Your task to perform on an android device: Show me productivity apps on the Play Store Image 0: 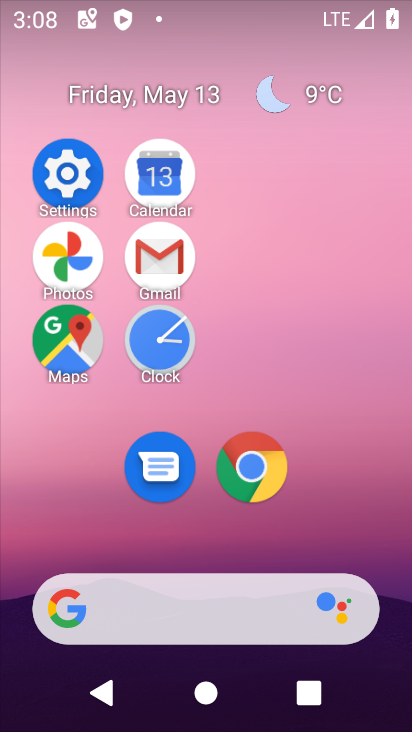
Step 0: drag from (274, 499) to (292, 141)
Your task to perform on an android device: Show me productivity apps on the Play Store Image 1: 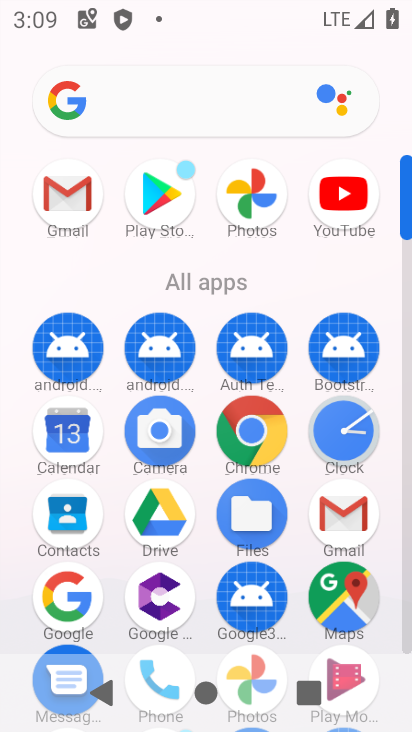
Step 1: drag from (237, 575) to (257, 149)
Your task to perform on an android device: Show me productivity apps on the Play Store Image 2: 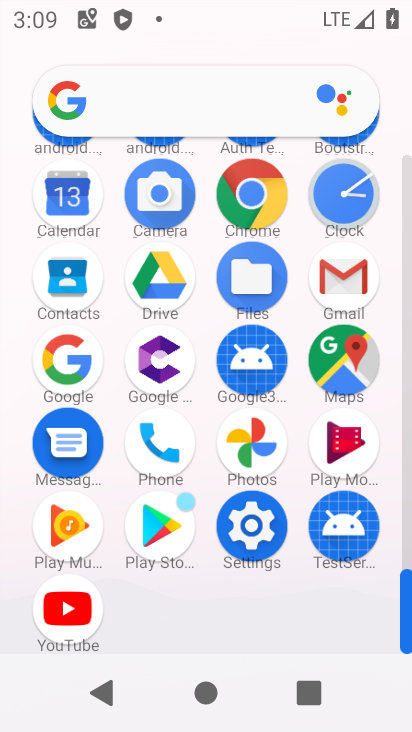
Step 2: click (173, 538)
Your task to perform on an android device: Show me productivity apps on the Play Store Image 3: 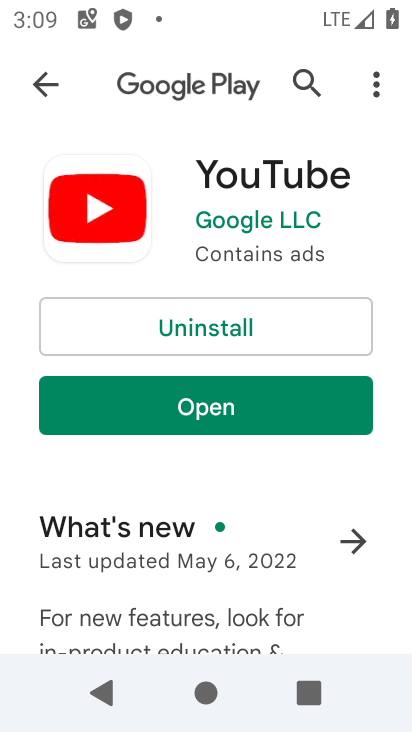
Step 3: click (42, 76)
Your task to perform on an android device: Show me productivity apps on the Play Store Image 4: 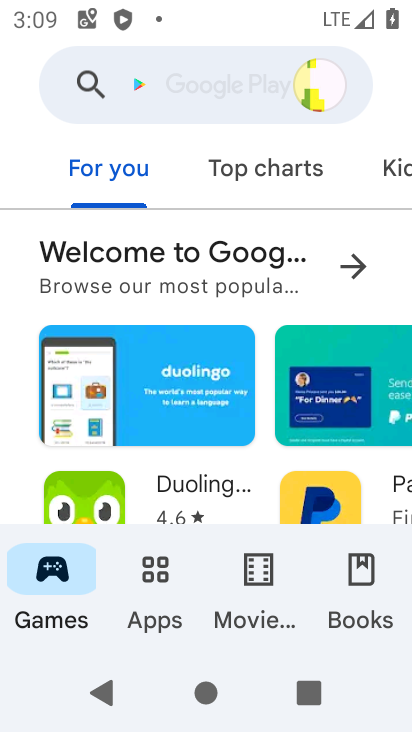
Step 4: click (172, 574)
Your task to perform on an android device: Show me productivity apps on the Play Store Image 5: 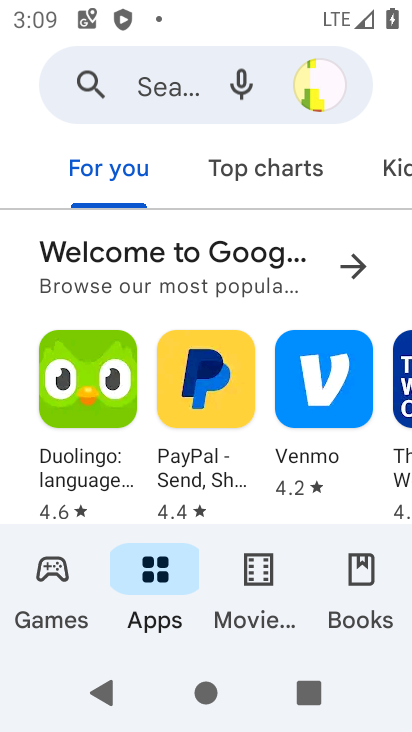
Step 5: drag from (379, 176) to (154, 169)
Your task to perform on an android device: Show me productivity apps on the Play Store Image 6: 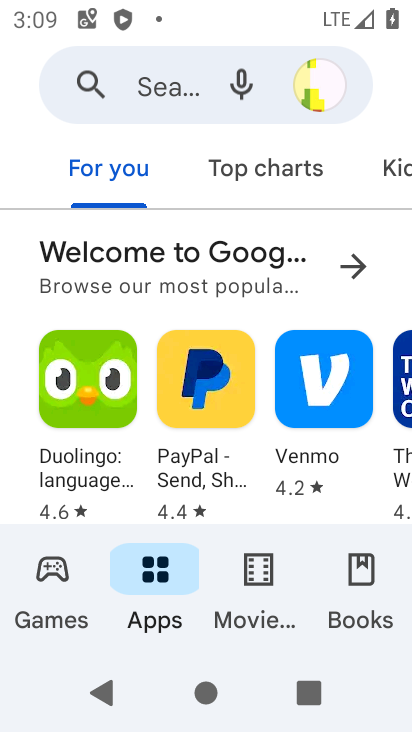
Step 6: drag from (387, 172) to (22, 147)
Your task to perform on an android device: Show me productivity apps on the Play Store Image 7: 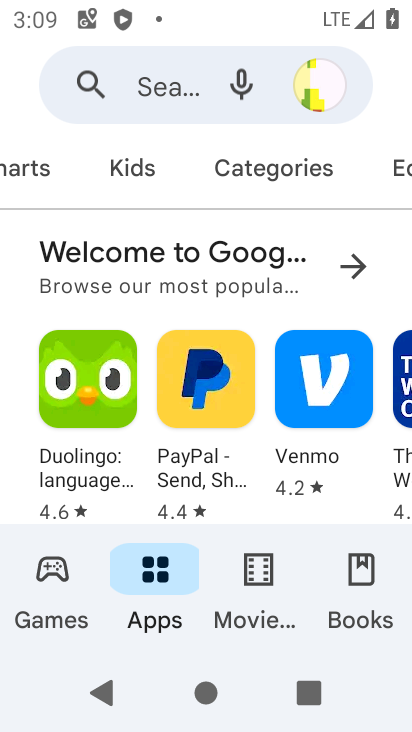
Step 7: click (264, 179)
Your task to perform on an android device: Show me productivity apps on the Play Store Image 8: 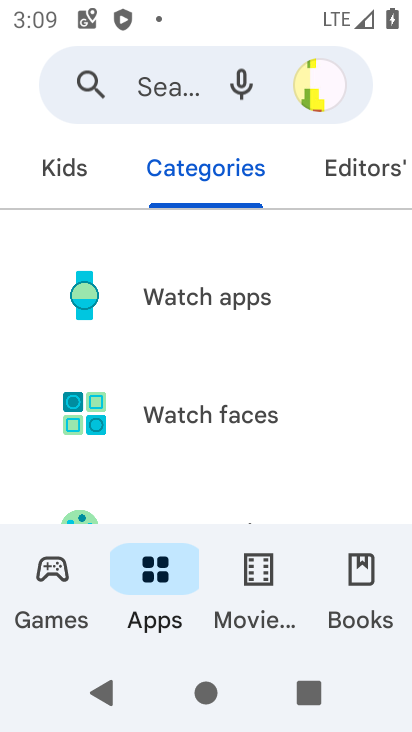
Step 8: drag from (293, 481) to (324, 150)
Your task to perform on an android device: Show me productivity apps on the Play Store Image 9: 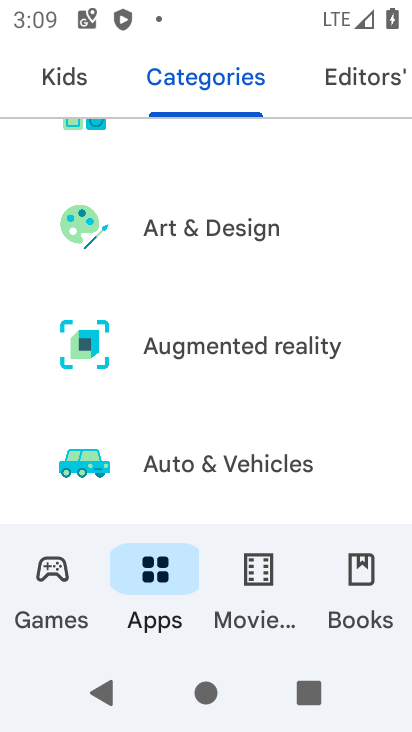
Step 9: drag from (322, 430) to (332, 177)
Your task to perform on an android device: Show me productivity apps on the Play Store Image 10: 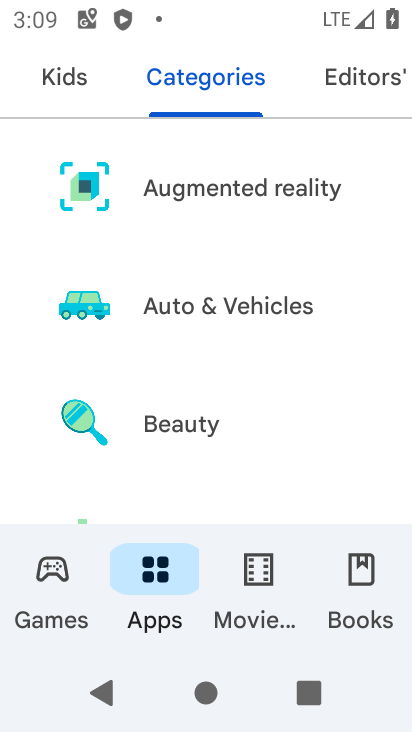
Step 10: drag from (354, 446) to (328, 186)
Your task to perform on an android device: Show me productivity apps on the Play Store Image 11: 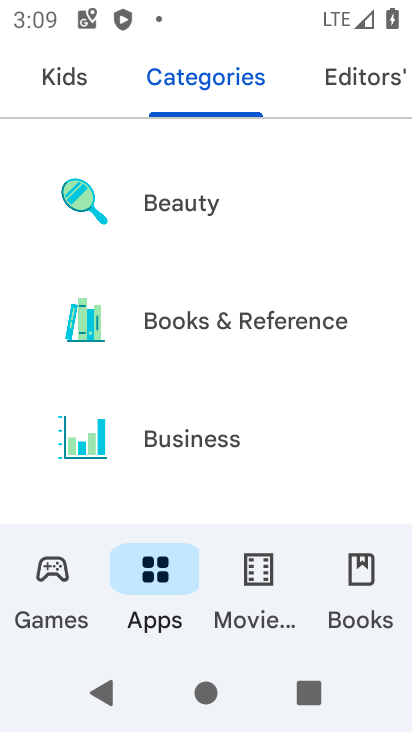
Step 11: drag from (325, 468) to (274, 158)
Your task to perform on an android device: Show me productivity apps on the Play Store Image 12: 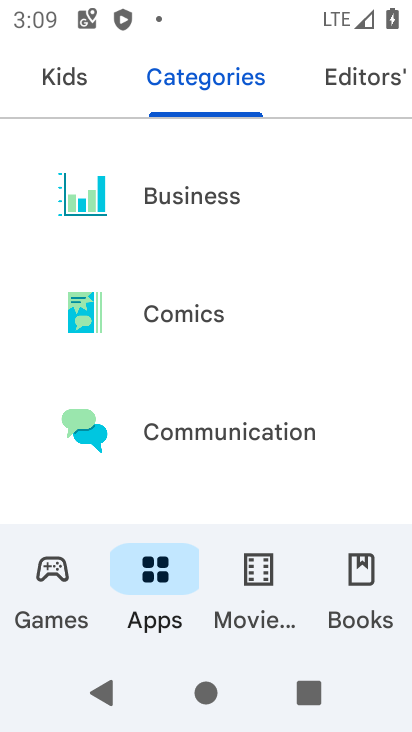
Step 12: drag from (338, 445) to (306, 151)
Your task to perform on an android device: Show me productivity apps on the Play Store Image 13: 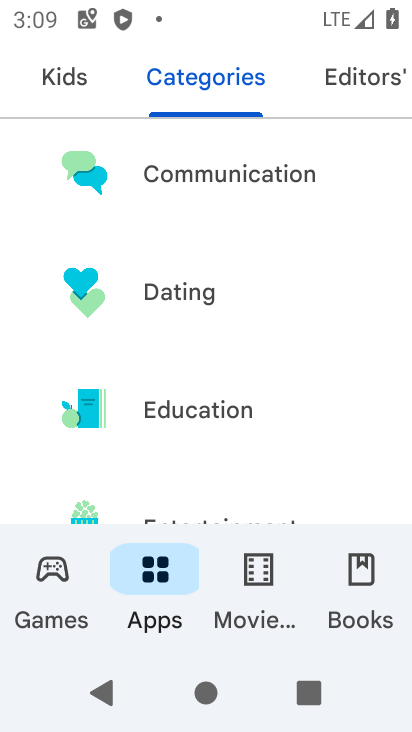
Step 13: drag from (299, 446) to (287, 124)
Your task to perform on an android device: Show me productivity apps on the Play Store Image 14: 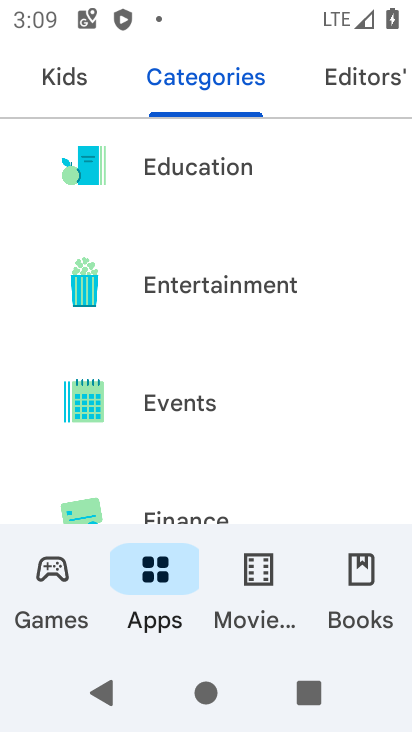
Step 14: drag from (309, 472) to (290, 182)
Your task to perform on an android device: Show me productivity apps on the Play Store Image 15: 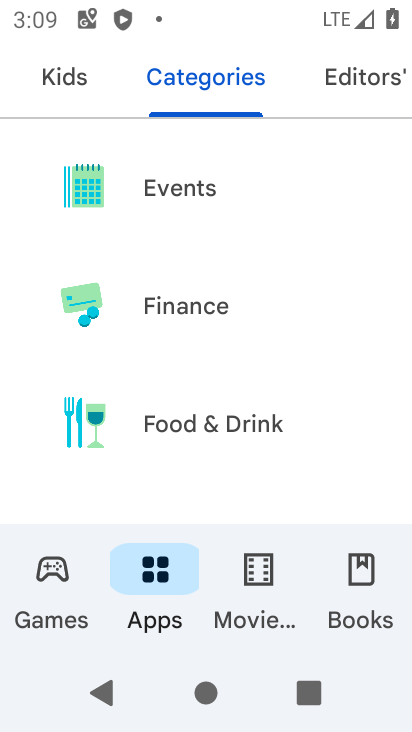
Step 15: drag from (322, 450) to (314, 121)
Your task to perform on an android device: Show me productivity apps on the Play Store Image 16: 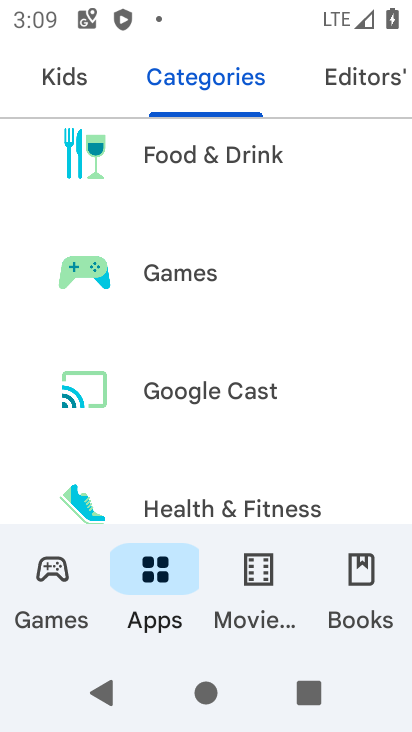
Step 16: drag from (309, 414) to (306, 132)
Your task to perform on an android device: Show me productivity apps on the Play Store Image 17: 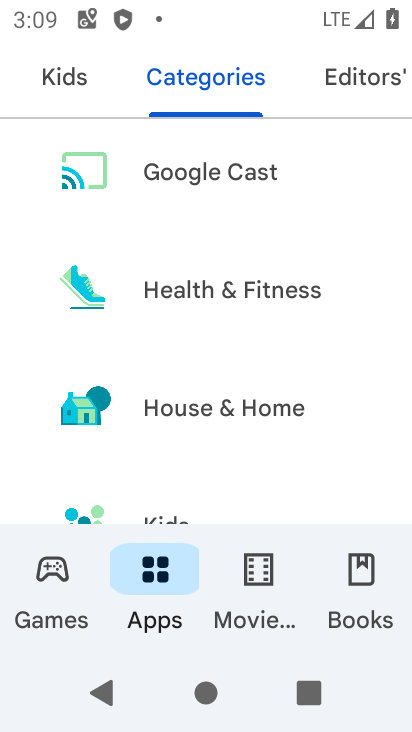
Step 17: drag from (261, 465) to (277, 161)
Your task to perform on an android device: Show me productivity apps on the Play Store Image 18: 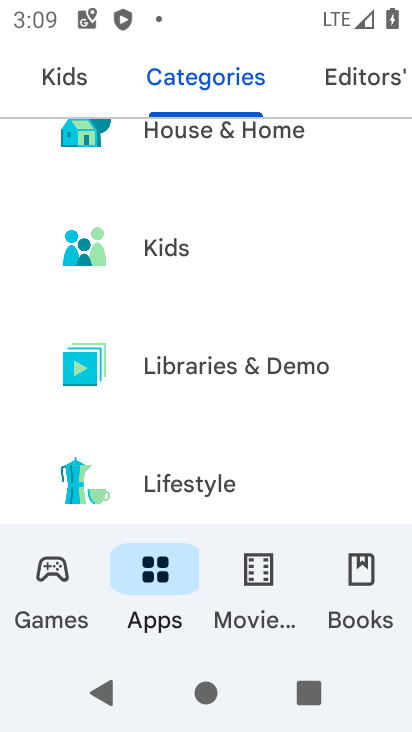
Step 18: drag from (310, 457) to (316, 142)
Your task to perform on an android device: Show me productivity apps on the Play Store Image 19: 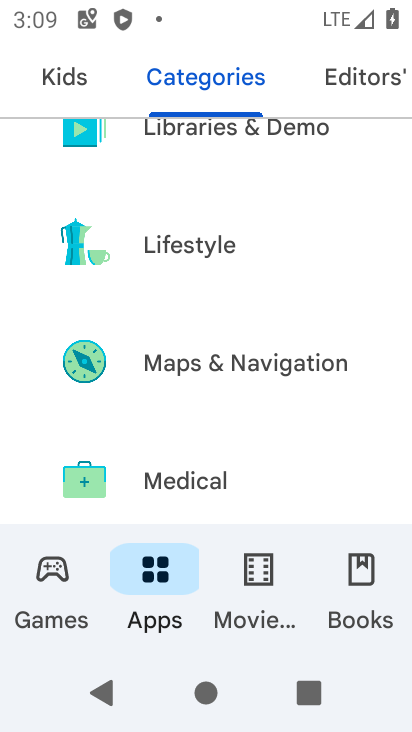
Step 19: drag from (297, 459) to (292, 138)
Your task to perform on an android device: Show me productivity apps on the Play Store Image 20: 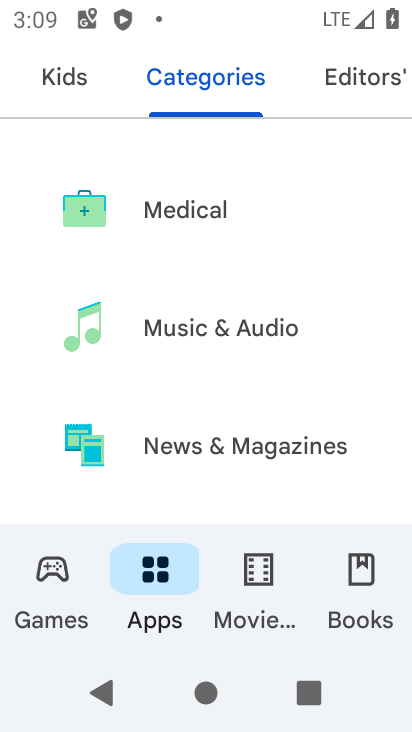
Step 20: drag from (265, 428) to (267, 146)
Your task to perform on an android device: Show me productivity apps on the Play Store Image 21: 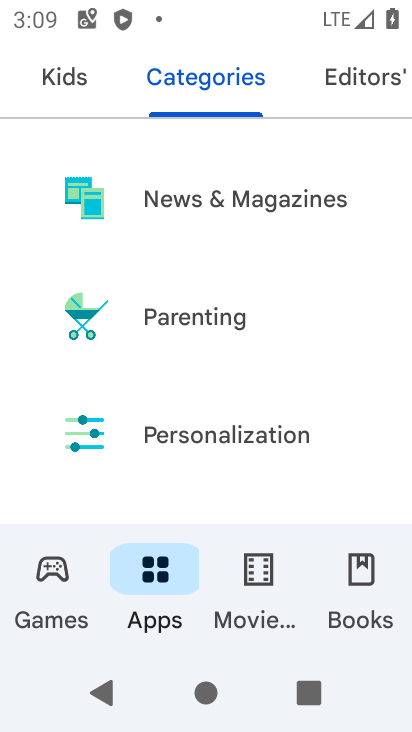
Step 21: drag from (267, 410) to (274, 141)
Your task to perform on an android device: Show me productivity apps on the Play Store Image 22: 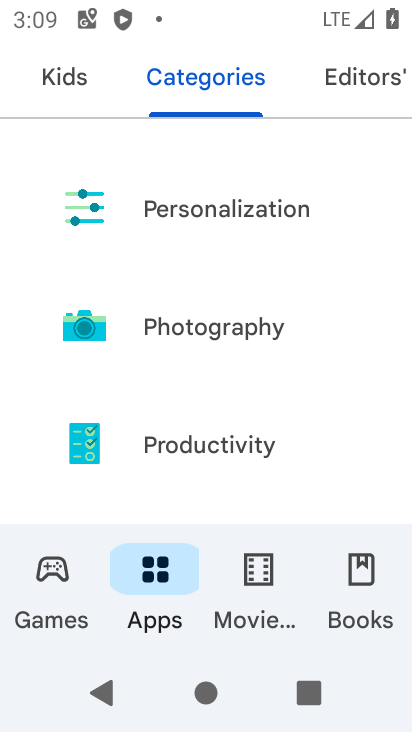
Step 22: click (247, 433)
Your task to perform on an android device: Show me productivity apps on the Play Store Image 23: 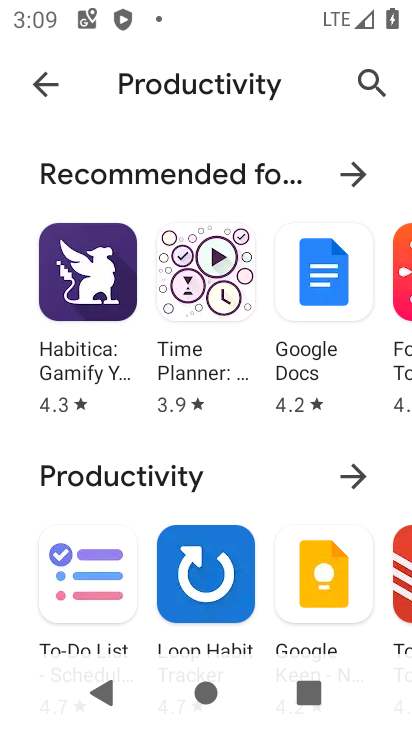
Step 23: task complete